Your task to perform on an android device: Go to internet settings Image 0: 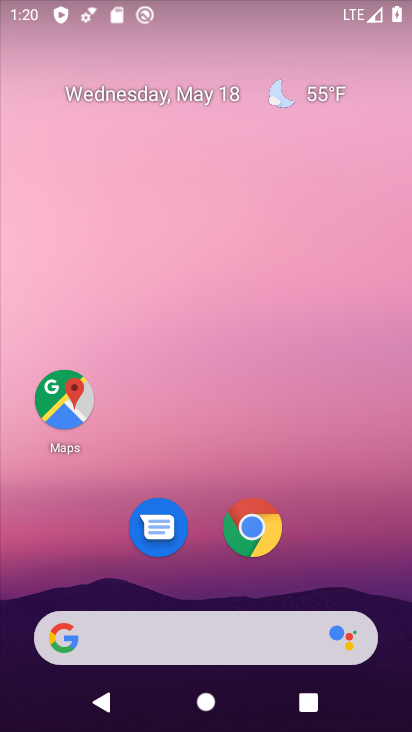
Step 0: drag from (312, 528) to (245, 114)
Your task to perform on an android device: Go to internet settings Image 1: 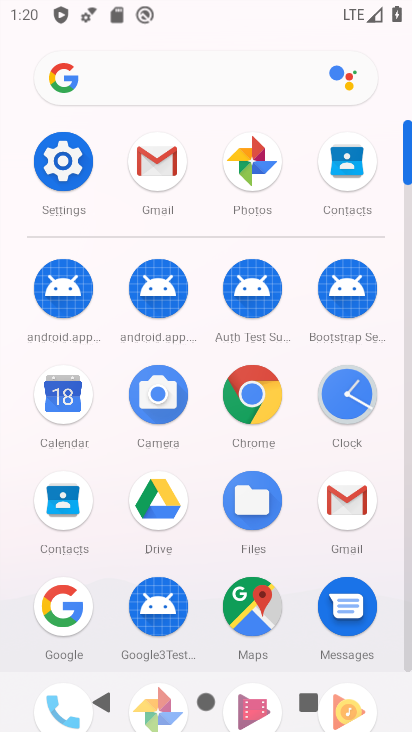
Step 1: click (66, 177)
Your task to perform on an android device: Go to internet settings Image 2: 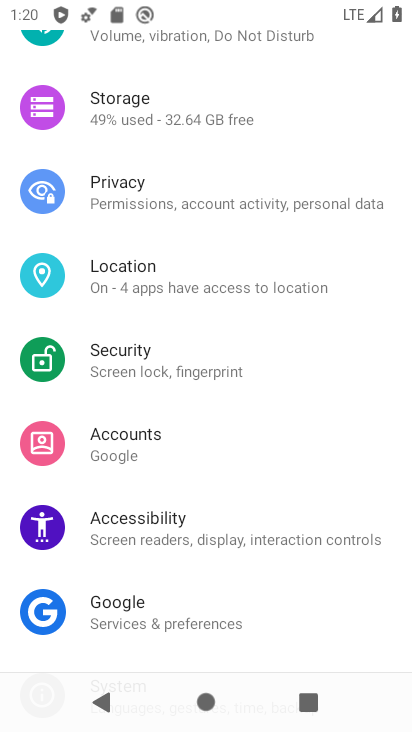
Step 2: drag from (223, 191) to (244, 612)
Your task to perform on an android device: Go to internet settings Image 3: 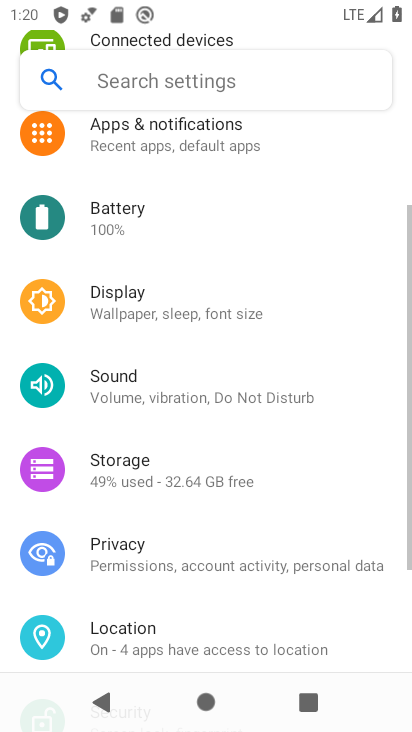
Step 3: drag from (249, 126) to (252, 587)
Your task to perform on an android device: Go to internet settings Image 4: 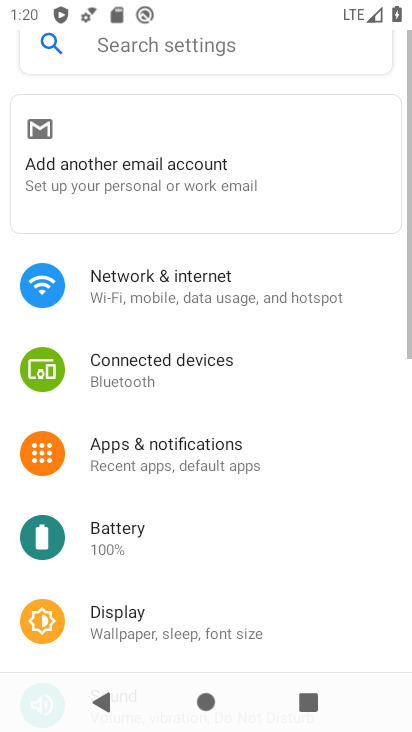
Step 4: drag from (230, 250) to (208, 615)
Your task to perform on an android device: Go to internet settings Image 5: 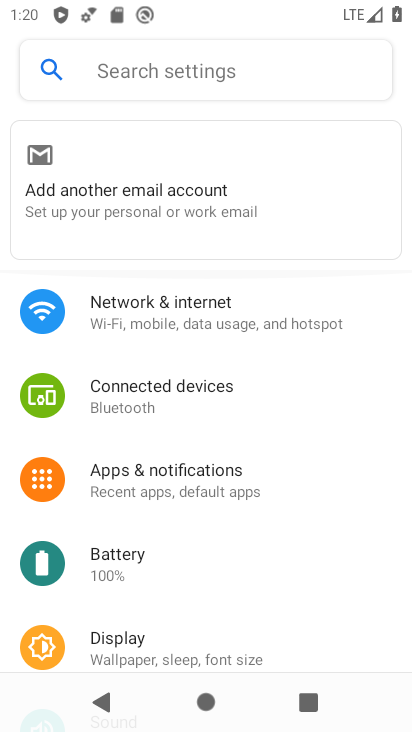
Step 5: click (224, 295)
Your task to perform on an android device: Go to internet settings Image 6: 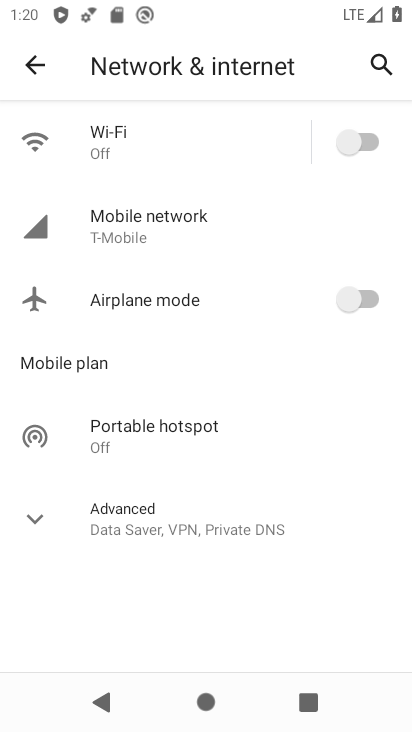
Step 6: task complete